Your task to perform on an android device: Open notification settings Image 0: 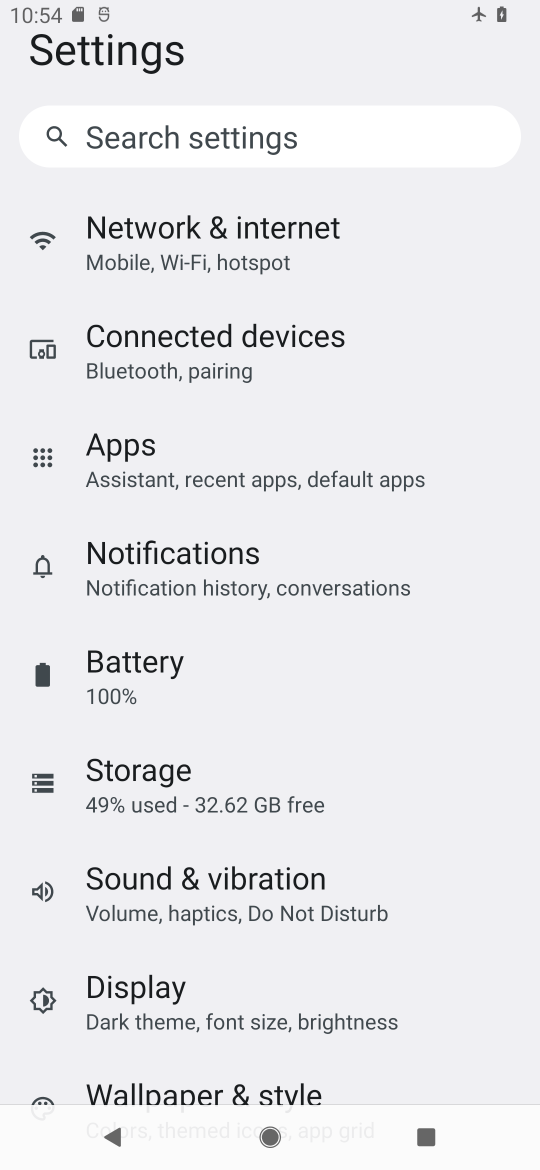
Step 0: click (166, 554)
Your task to perform on an android device: Open notification settings Image 1: 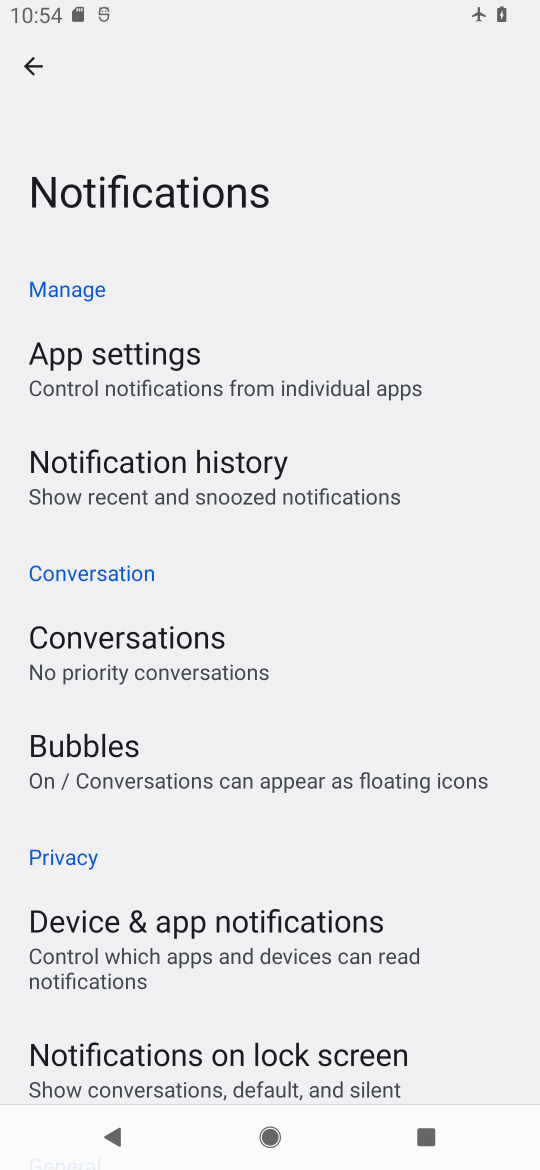
Step 1: task complete